Your task to perform on an android device: Look up the new steph curry shoes Image 0: 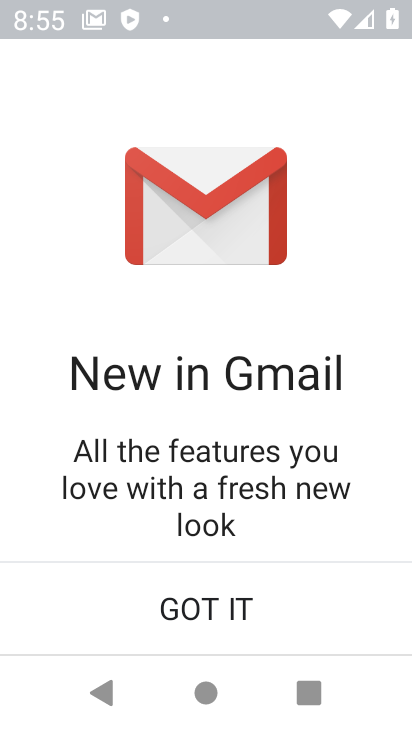
Step 0: press home button
Your task to perform on an android device: Look up the new steph curry shoes Image 1: 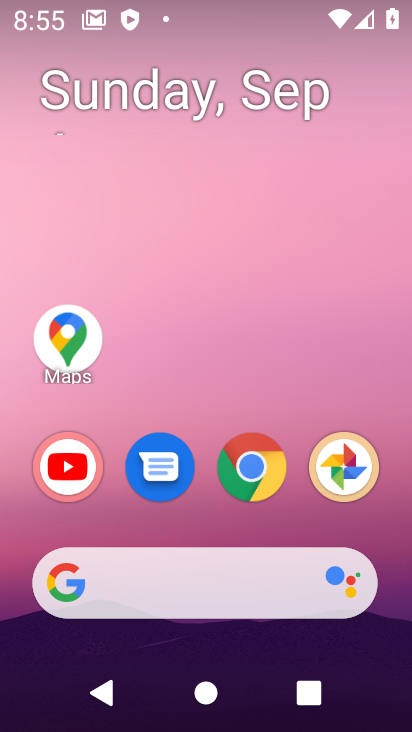
Step 1: click (275, 465)
Your task to perform on an android device: Look up the new steph curry shoes Image 2: 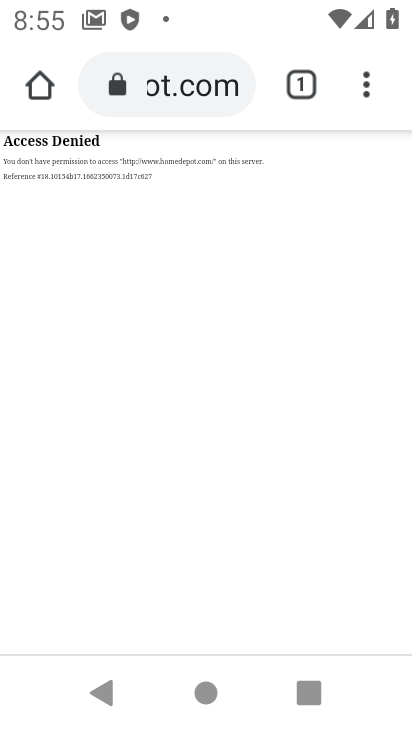
Step 2: click (188, 82)
Your task to perform on an android device: Look up the new steph curry shoes Image 3: 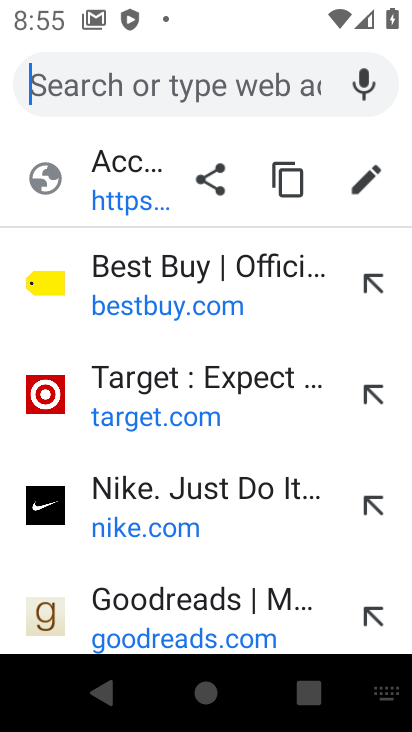
Step 3: type "new steph curry shoes"
Your task to perform on an android device: Look up the new steph curry shoes Image 4: 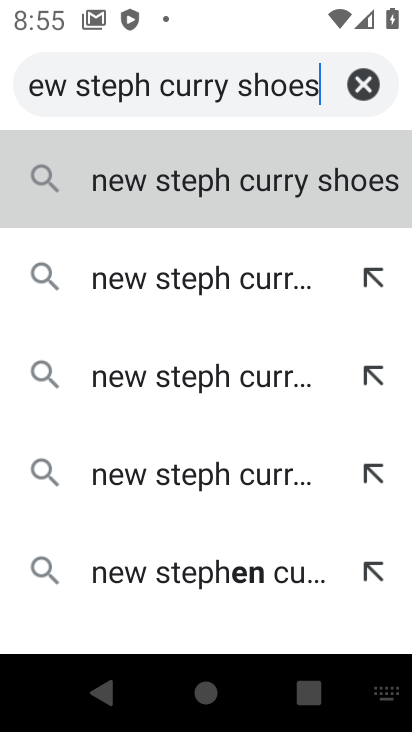
Step 4: type ""
Your task to perform on an android device: Look up the new steph curry shoes Image 5: 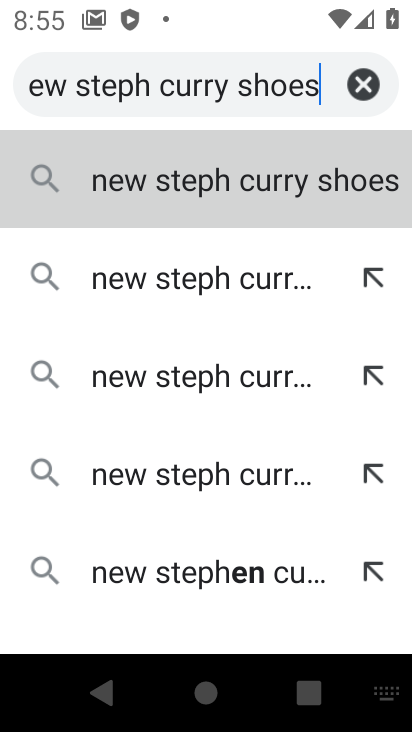
Step 5: click (212, 181)
Your task to perform on an android device: Look up the new steph curry shoes Image 6: 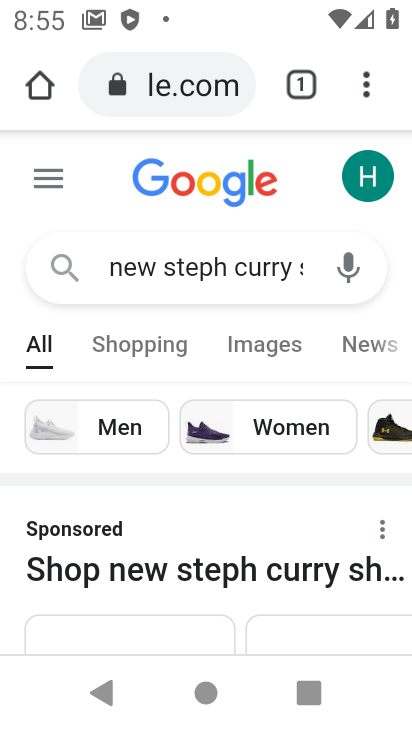
Step 6: drag from (257, 328) to (267, 245)
Your task to perform on an android device: Look up the new steph curry shoes Image 7: 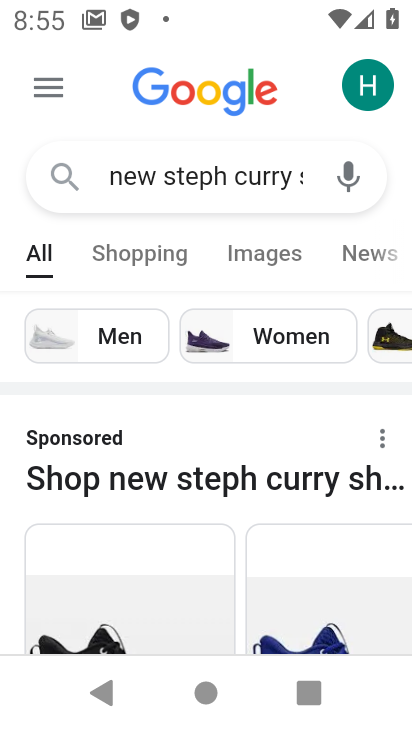
Step 7: drag from (317, 325) to (310, 75)
Your task to perform on an android device: Look up the new steph curry shoes Image 8: 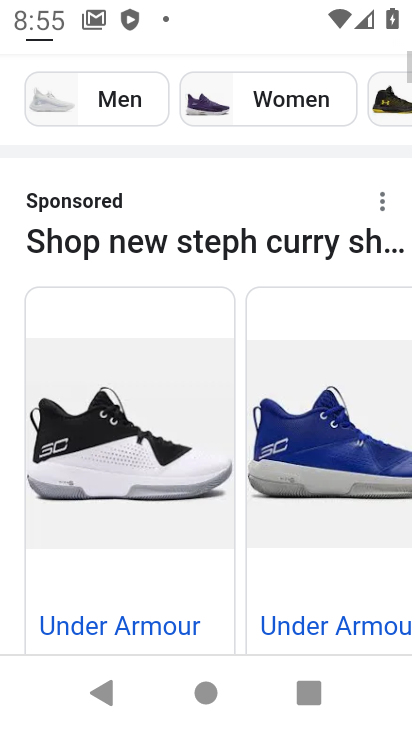
Step 8: drag from (395, 358) to (383, 79)
Your task to perform on an android device: Look up the new steph curry shoes Image 9: 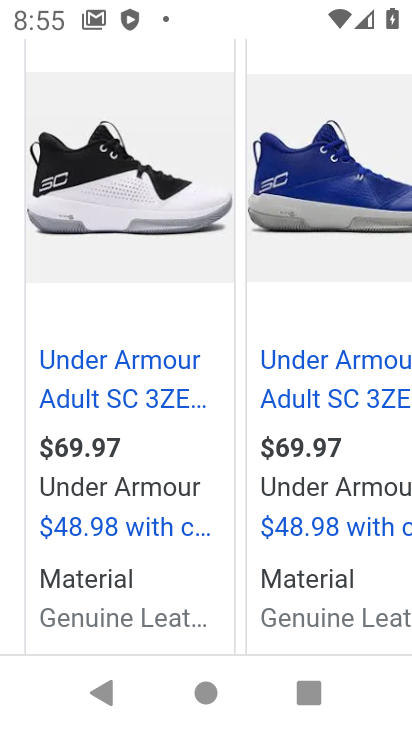
Step 9: drag from (349, 310) to (373, 170)
Your task to perform on an android device: Look up the new steph curry shoes Image 10: 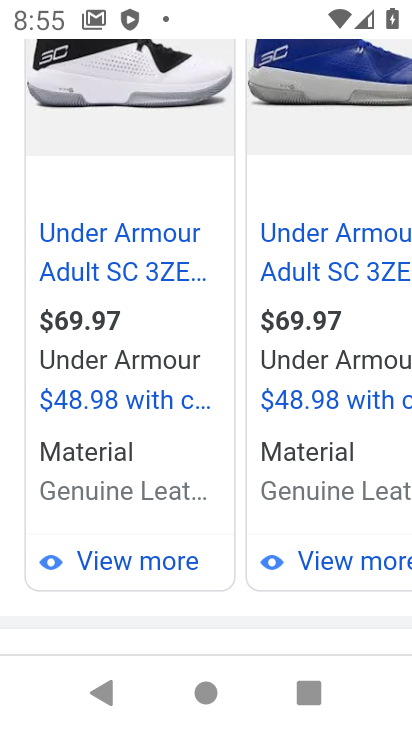
Step 10: click (274, 196)
Your task to perform on an android device: Look up the new steph curry shoes Image 11: 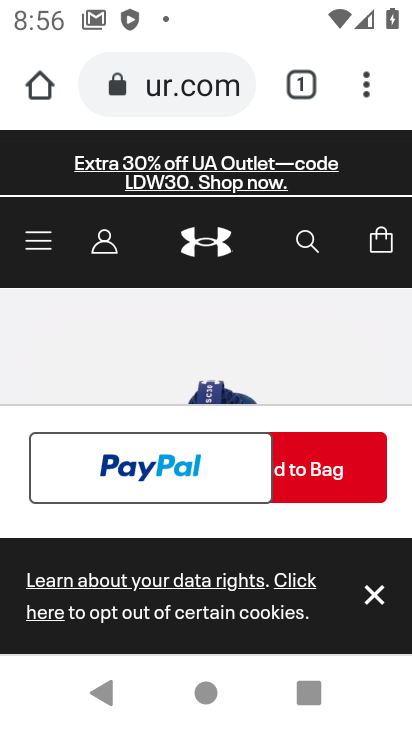
Step 11: click (378, 598)
Your task to perform on an android device: Look up the new steph curry shoes Image 12: 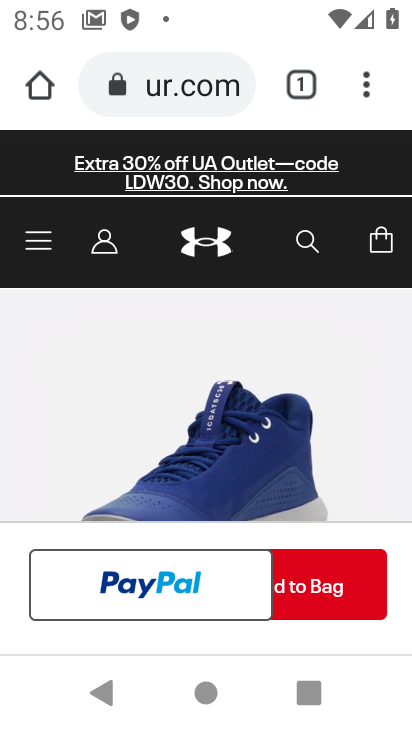
Step 12: drag from (366, 409) to (359, 295)
Your task to perform on an android device: Look up the new steph curry shoes Image 13: 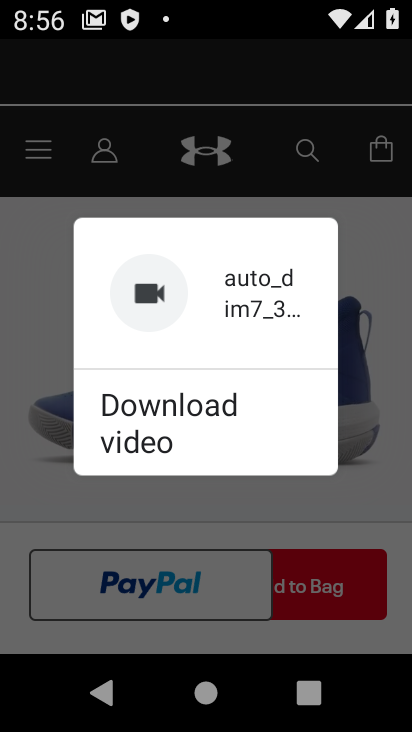
Step 13: click (387, 455)
Your task to perform on an android device: Look up the new steph curry shoes Image 14: 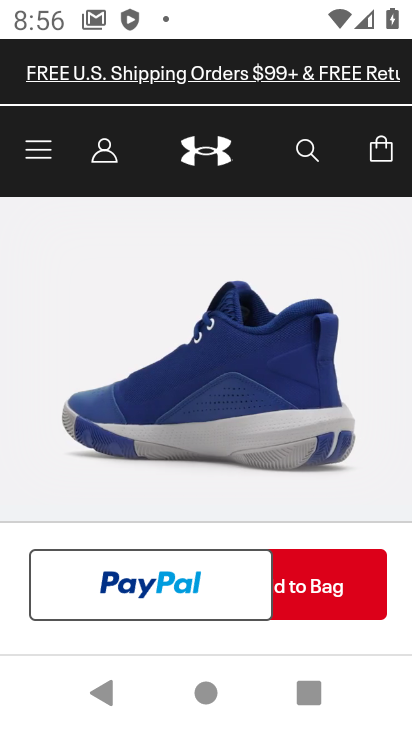
Step 14: task complete